Your task to perform on an android device: Open Android settings Image 0: 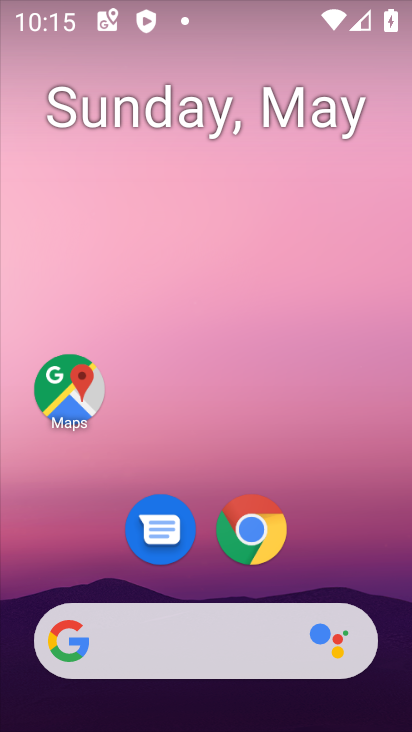
Step 0: drag from (228, 613) to (78, 30)
Your task to perform on an android device: Open Android settings Image 1: 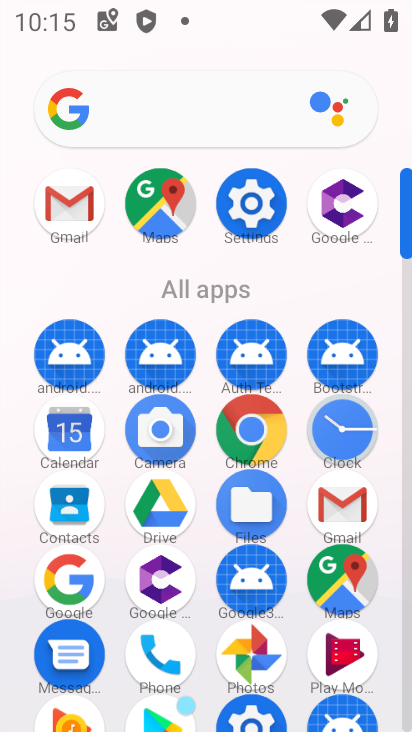
Step 1: click (268, 217)
Your task to perform on an android device: Open Android settings Image 2: 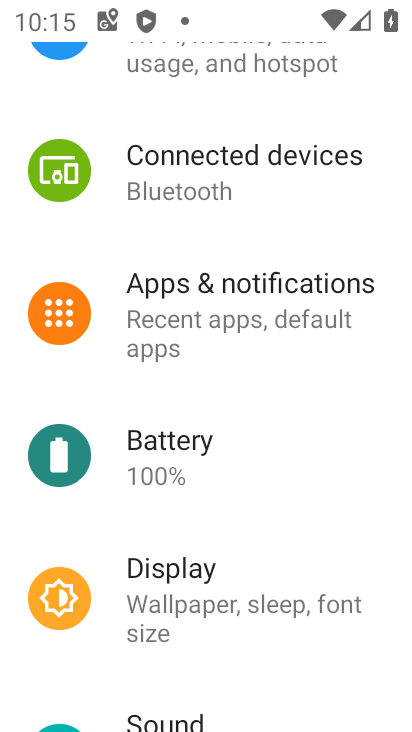
Step 2: drag from (193, 89) to (93, 30)
Your task to perform on an android device: Open Android settings Image 3: 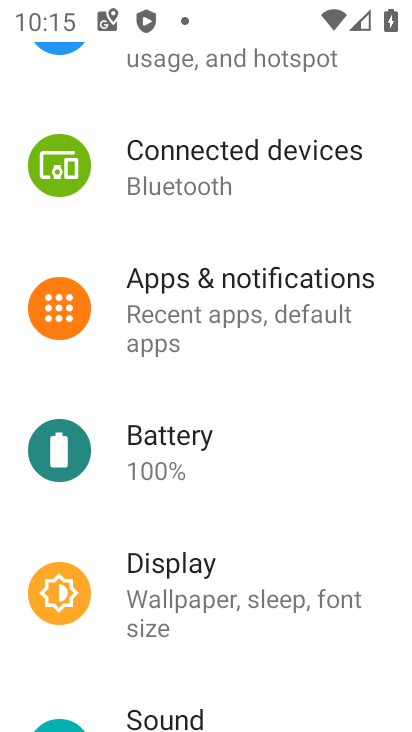
Step 3: drag from (199, 665) to (191, 49)
Your task to perform on an android device: Open Android settings Image 4: 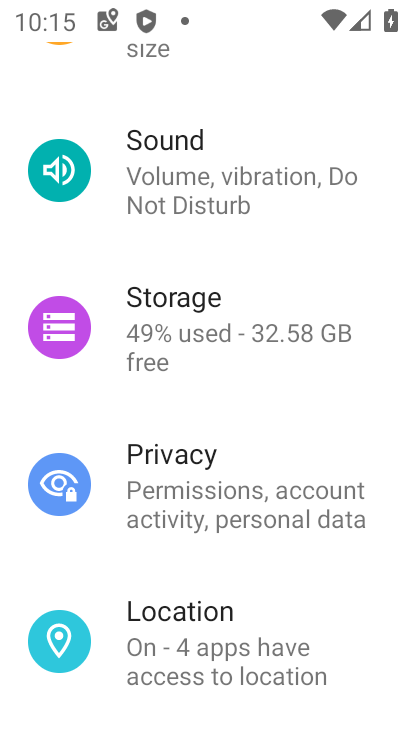
Step 4: drag from (186, 663) to (195, 10)
Your task to perform on an android device: Open Android settings Image 5: 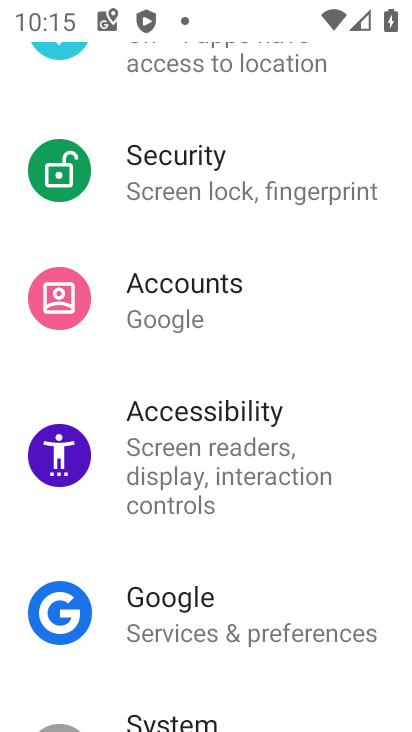
Step 5: drag from (221, 609) to (154, 1)
Your task to perform on an android device: Open Android settings Image 6: 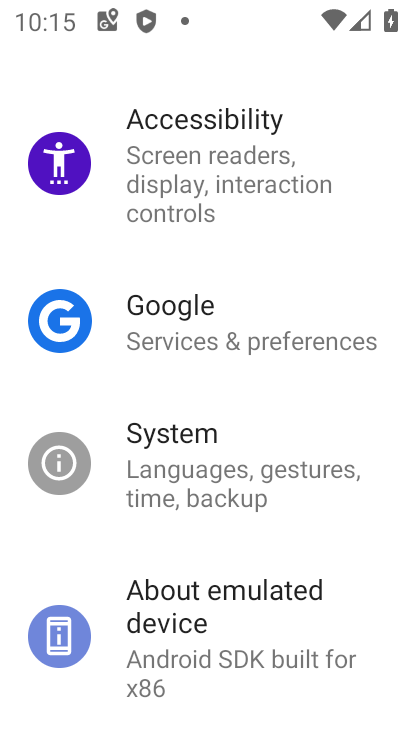
Step 6: drag from (227, 629) to (187, 47)
Your task to perform on an android device: Open Android settings Image 7: 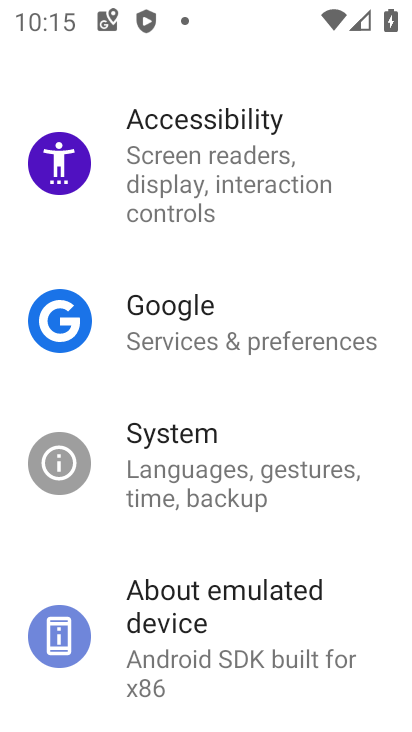
Step 7: click (239, 632)
Your task to perform on an android device: Open Android settings Image 8: 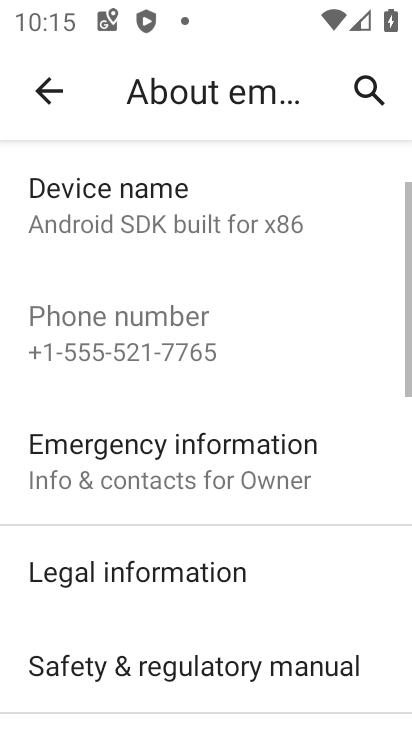
Step 8: task complete